Your task to perform on an android device: Is it going to rain tomorrow? Image 0: 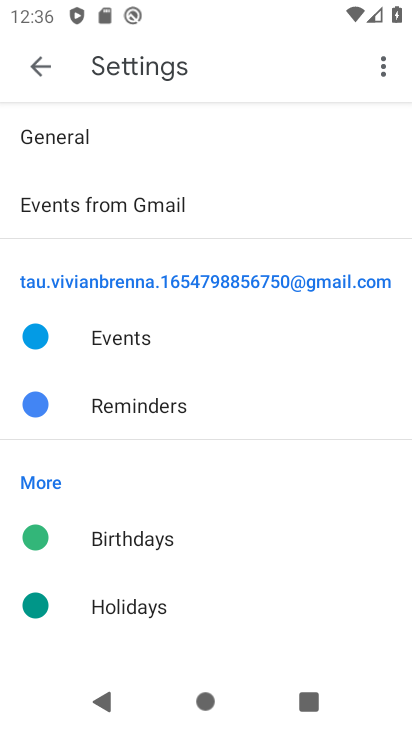
Step 0: press home button
Your task to perform on an android device: Is it going to rain tomorrow? Image 1: 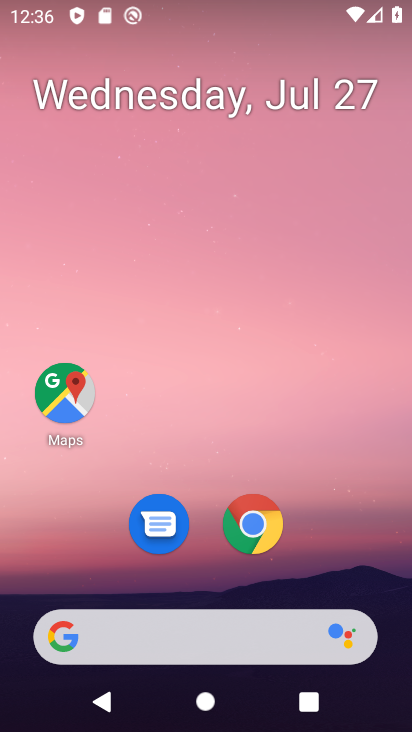
Step 1: drag from (338, 544) to (385, 22)
Your task to perform on an android device: Is it going to rain tomorrow? Image 2: 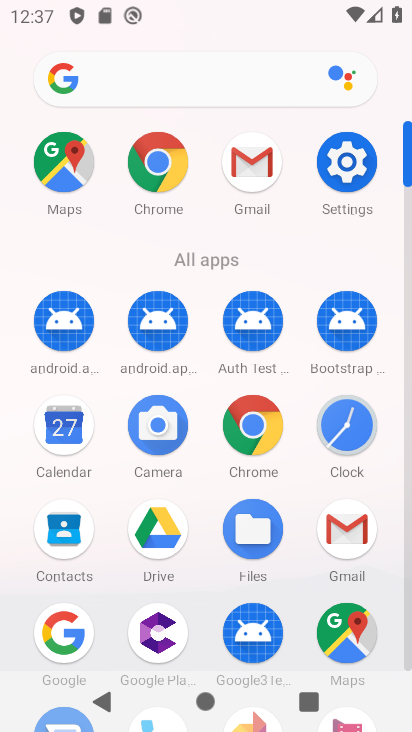
Step 2: press home button
Your task to perform on an android device: Is it going to rain tomorrow? Image 3: 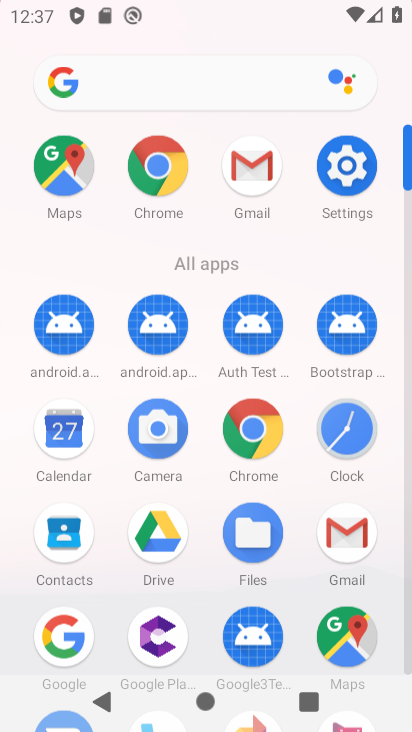
Step 3: press home button
Your task to perform on an android device: Is it going to rain tomorrow? Image 4: 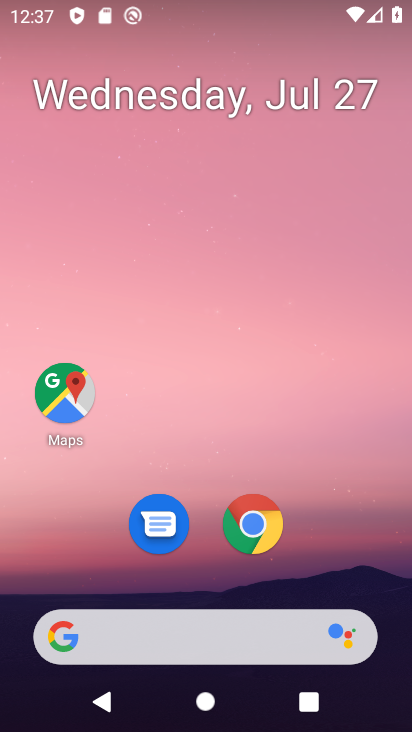
Step 4: click (248, 640)
Your task to perform on an android device: Is it going to rain tomorrow? Image 5: 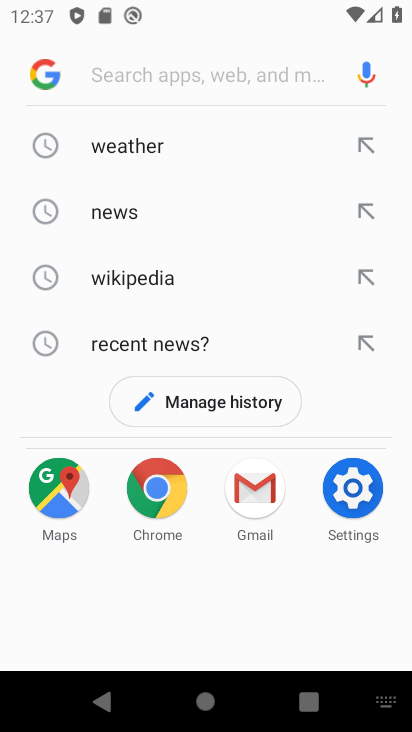
Step 5: click (146, 148)
Your task to perform on an android device: Is it going to rain tomorrow? Image 6: 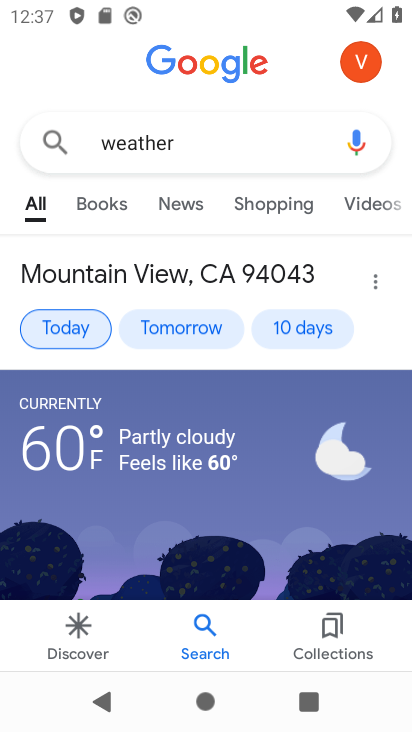
Step 6: click (181, 335)
Your task to perform on an android device: Is it going to rain tomorrow? Image 7: 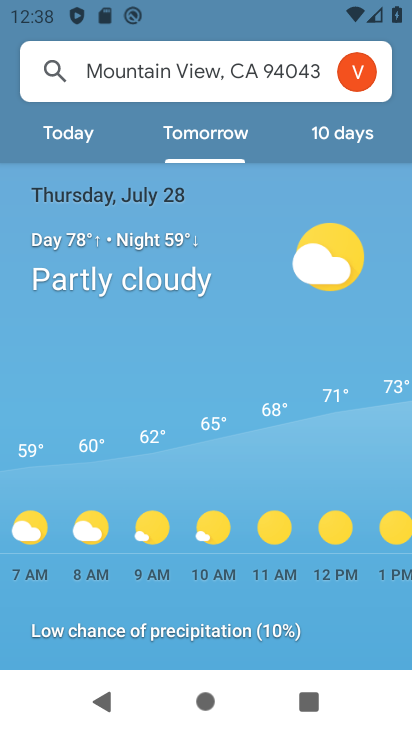
Step 7: task complete